Your task to perform on an android device: make emails show in primary in the gmail app Image 0: 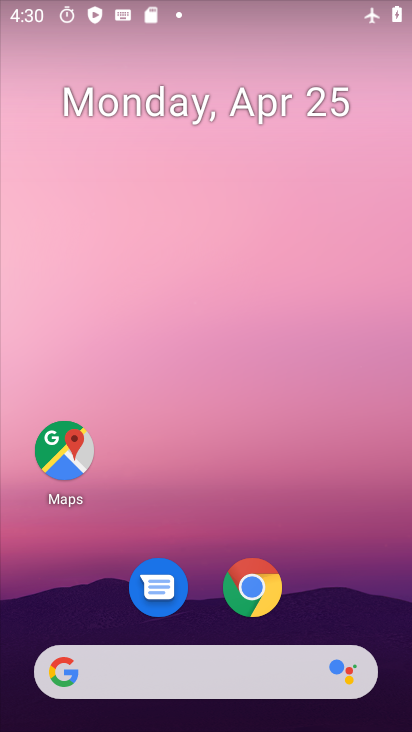
Step 0: drag from (317, 460) to (309, 175)
Your task to perform on an android device: make emails show in primary in the gmail app Image 1: 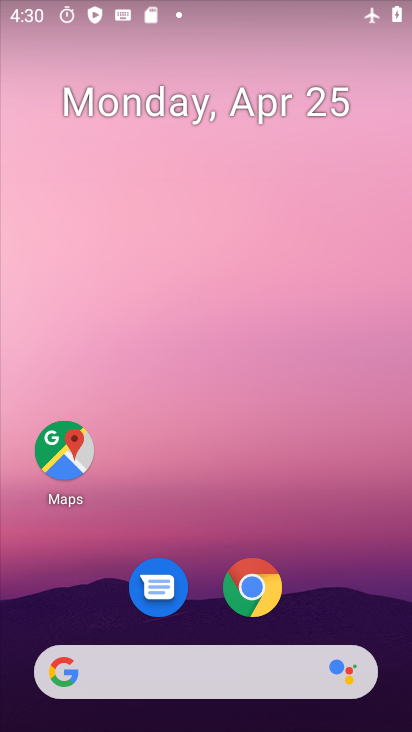
Step 1: drag from (341, 554) to (270, 183)
Your task to perform on an android device: make emails show in primary in the gmail app Image 2: 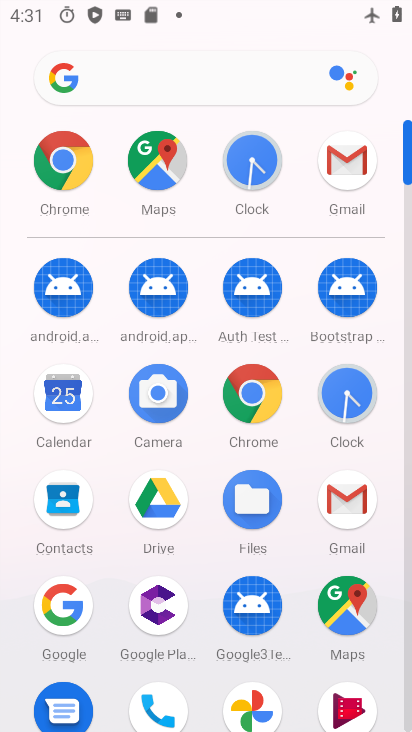
Step 2: click (356, 505)
Your task to perform on an android device: make emails show in primary in the gmail app Image 3: 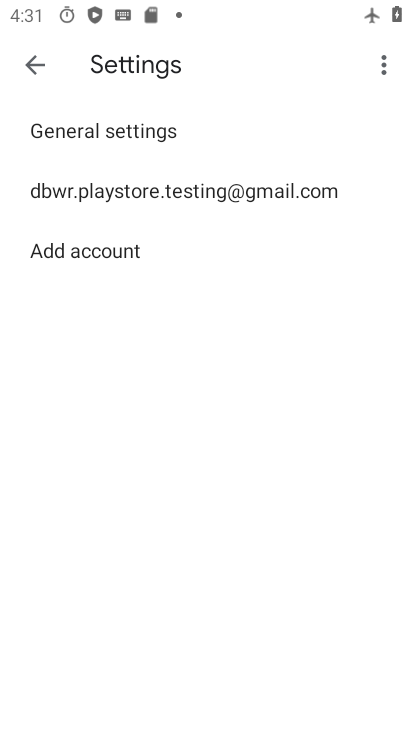
Step 3: click (245, 201)
Your task to perform on an android device: make emails show in primary in the gmail app Image 4: 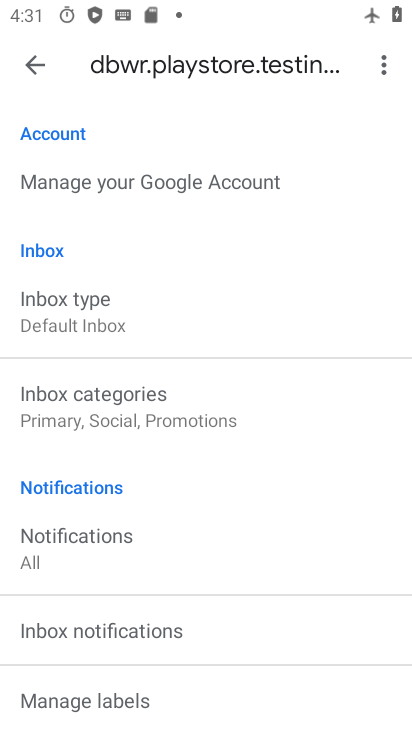
Step 4: click (95, 403)
Your task to perform on an android device: make emails show in primary in the gmail app Image 5: 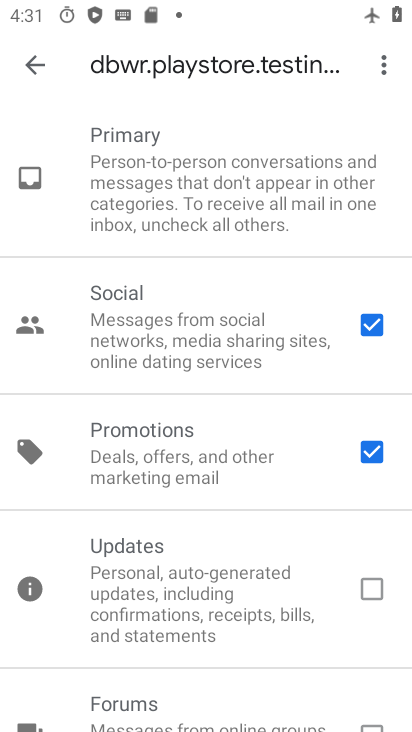
Step 5: task complete